Your task to perform on an android device: Open Yahoo.com Image 0: 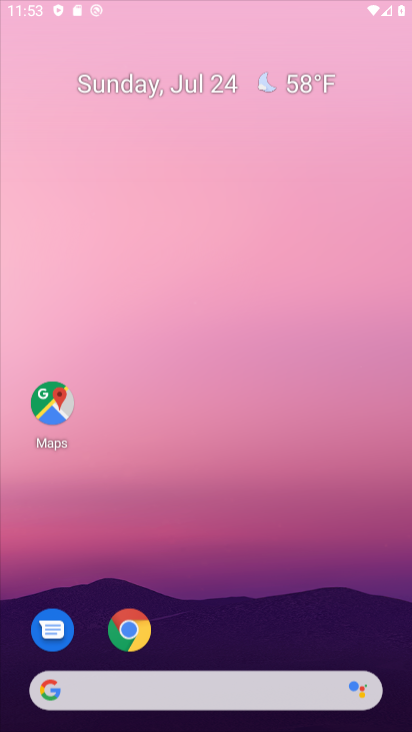
Step 0: drag from (214, 219) to (205, 128)
Your task to perform on an android device: Open Yahoo.com Image 1: 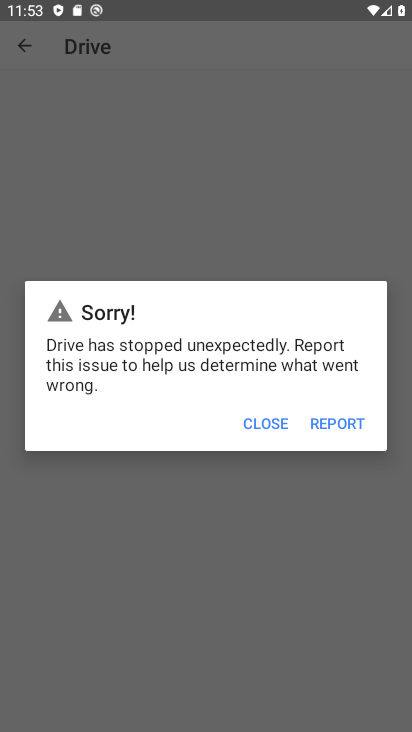
Step 1: press home button
Your task to perform on an android device: Open Yahoo.com Image 2: 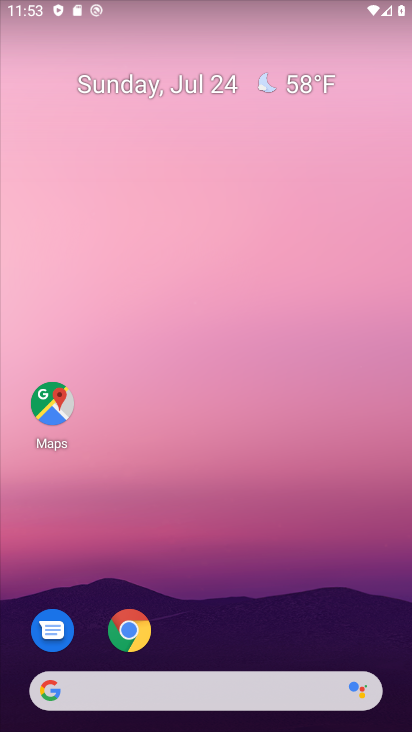
Step 2: click (130, 635)
Your task to perform on an android device: Open Yahoo.com Image 3: 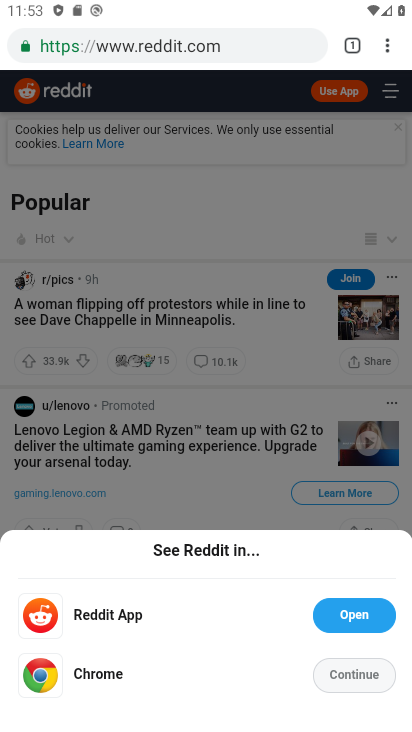
Step 3: click (353, 54)
Your task to perform on an android device: Open Yahoo.com Image 4: 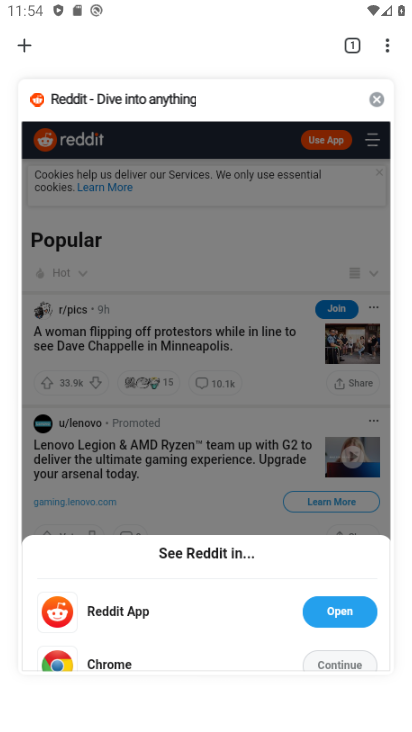
Step 4: click (25, 48)
Your task to perform on an android device: Open Yahoo.com Image 5: 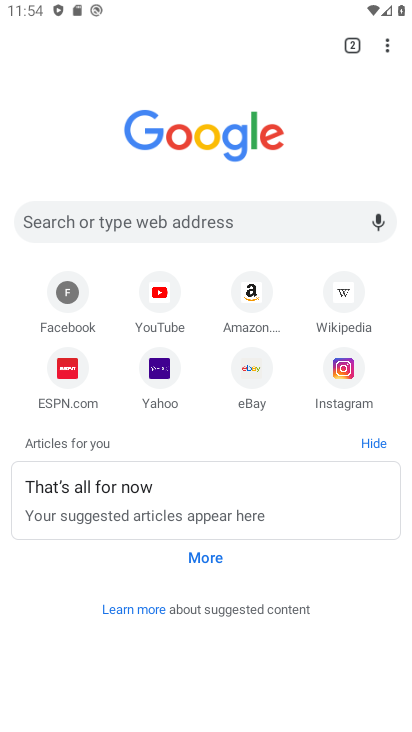
Step 5: click (169, 381)
Your task to perform on an android device: Open Yahoo.com Image 6: 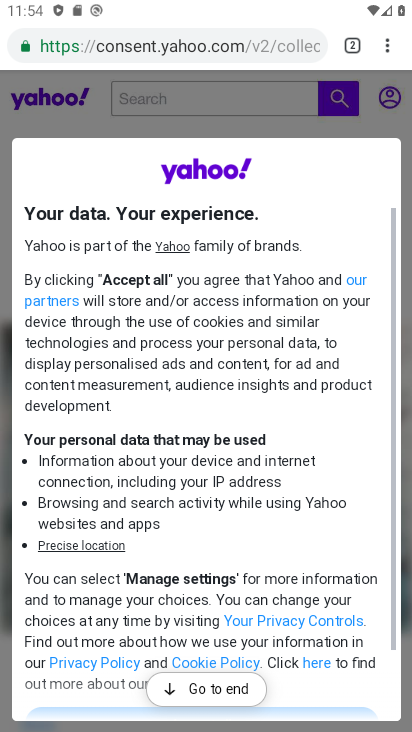
Step 6: task complete